Your task to perform on an android device: uninstall "Paramount+ | Peak Streaming" Image 0: 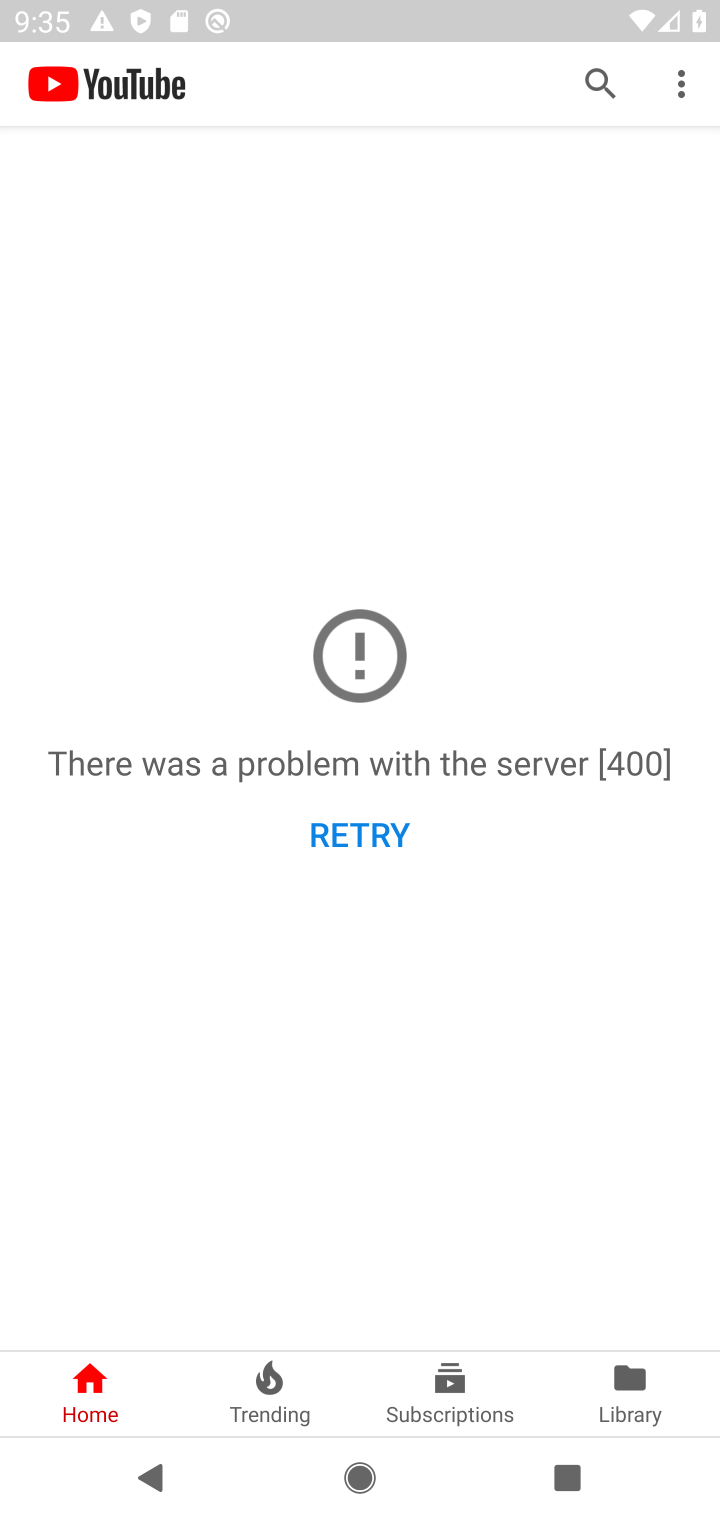
Step 0: press home button
Your task to perform on an android device: uninstall "Paramount+ | Peak Streaming" Image 1: 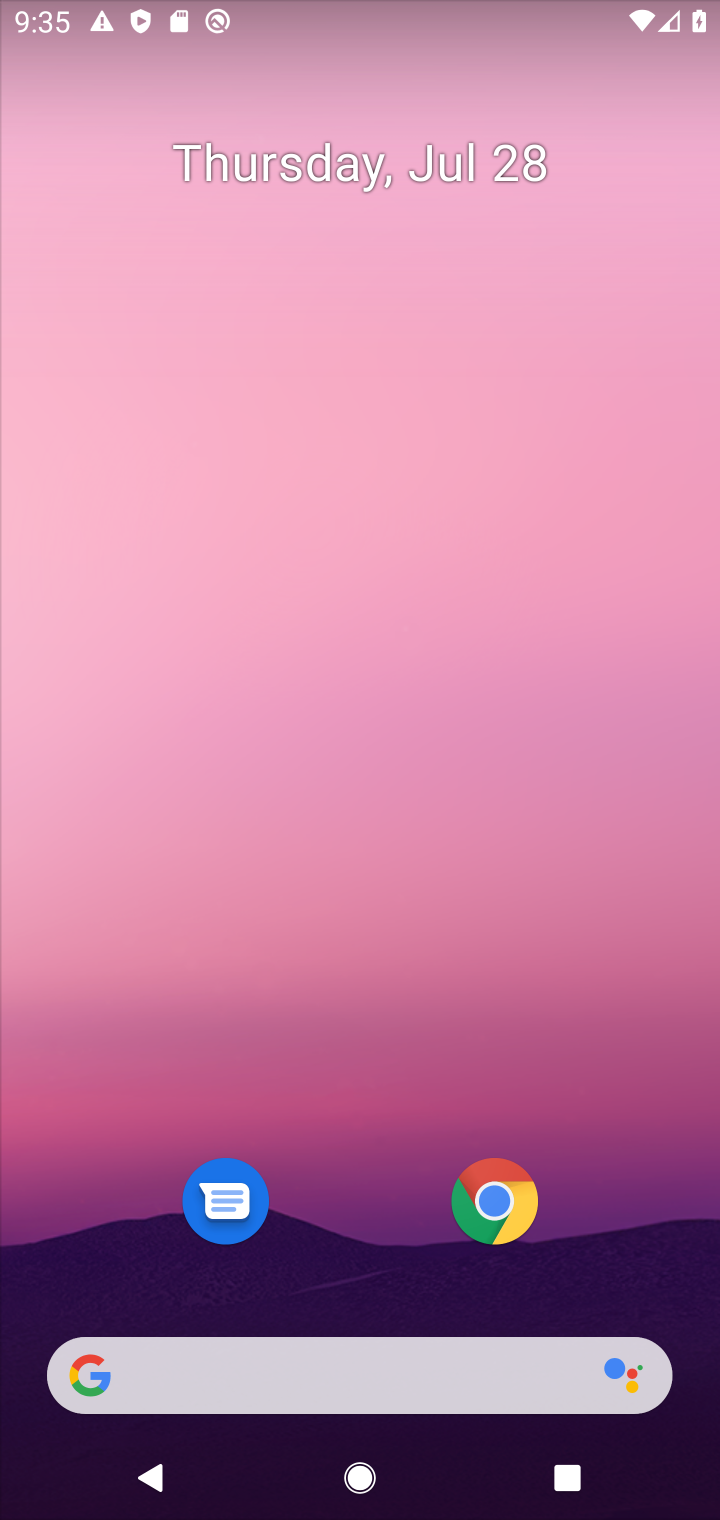
Step 1: drag from (299, 1302) to (346, 2)
Your task to perform on an android device: uninstall "Paramount+ | Peak Streaming" Image 2: 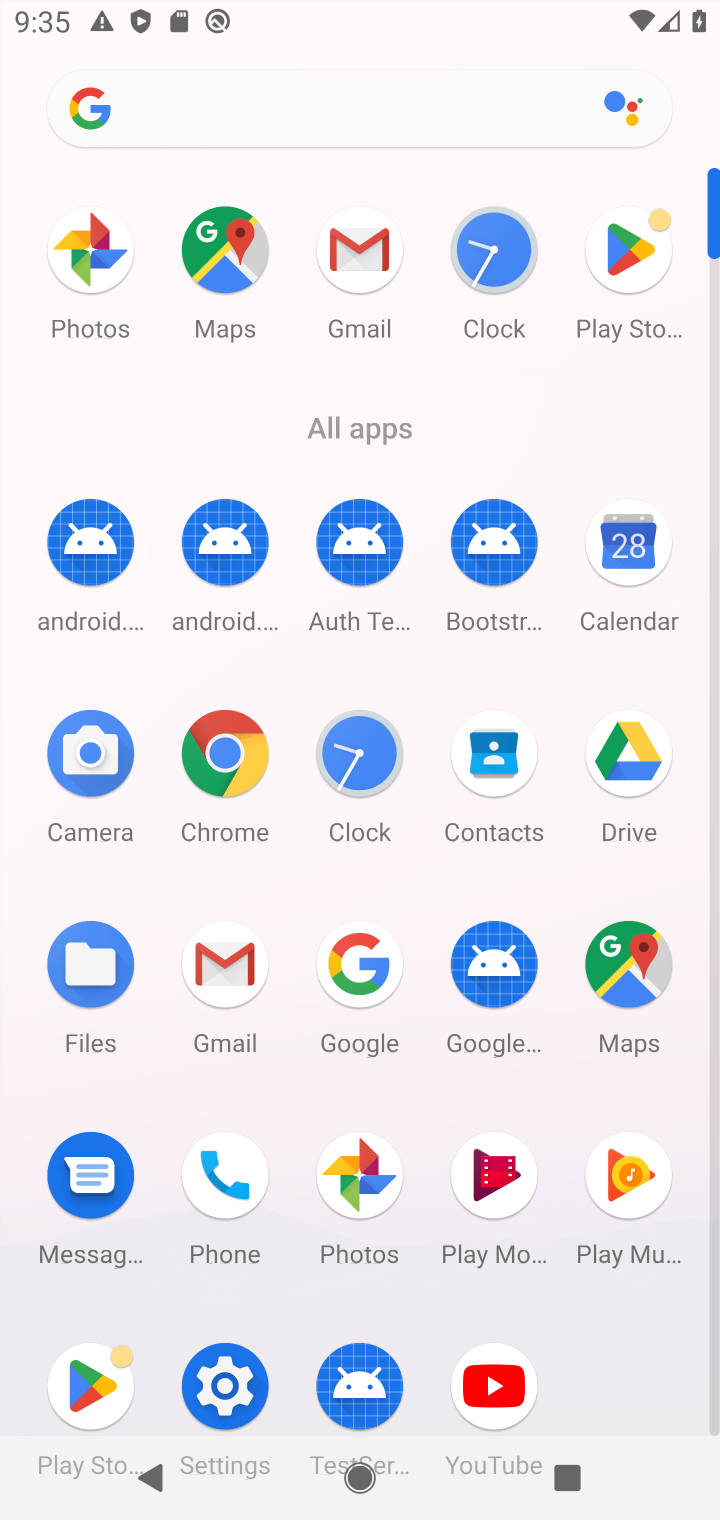
Step 2: click (627, 297)
Your task to perform on an android device: uninstall "Paramount+ | Peak Streaming" Image 3: 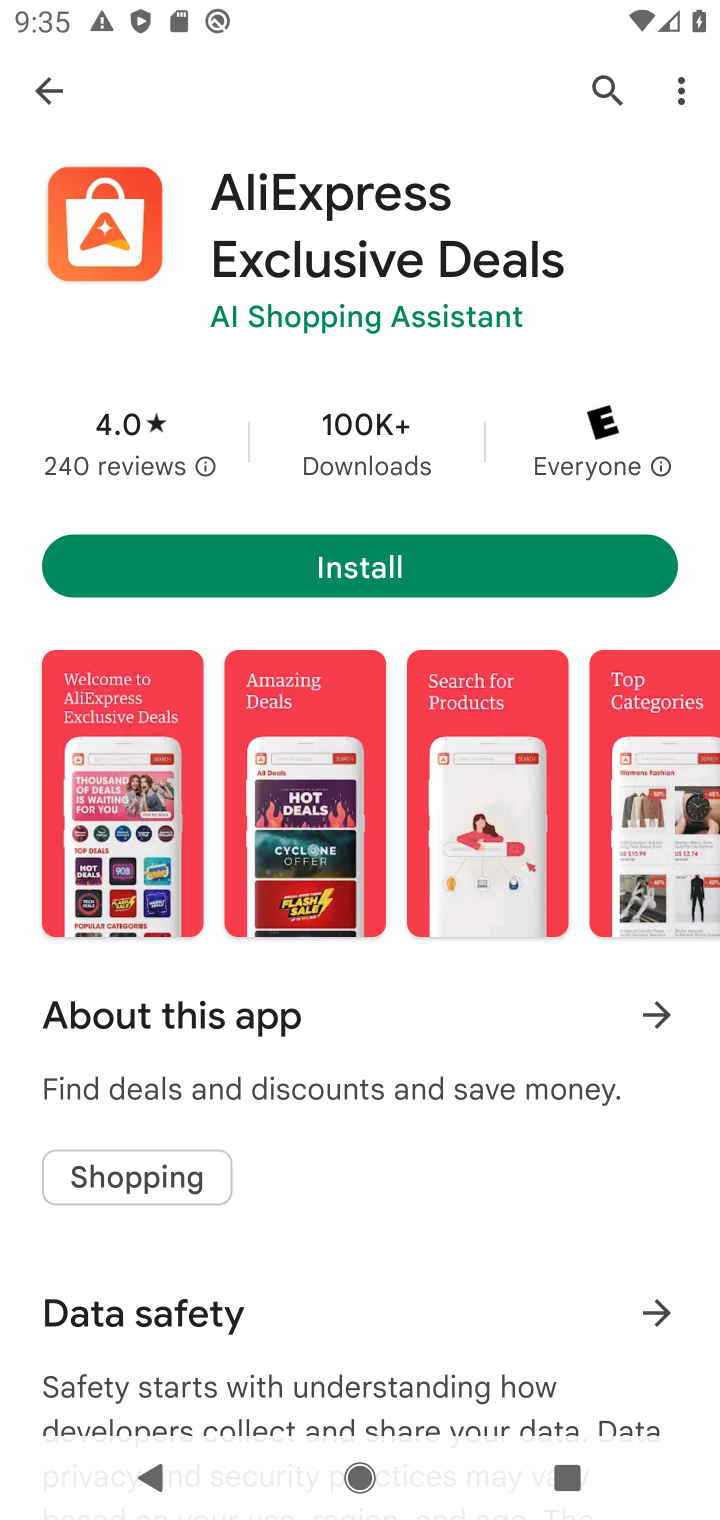
Step 3: click (48, 92)
Your task to perform on an android device: uninstall "Paramount+ | Peak Streaming" Image 4: 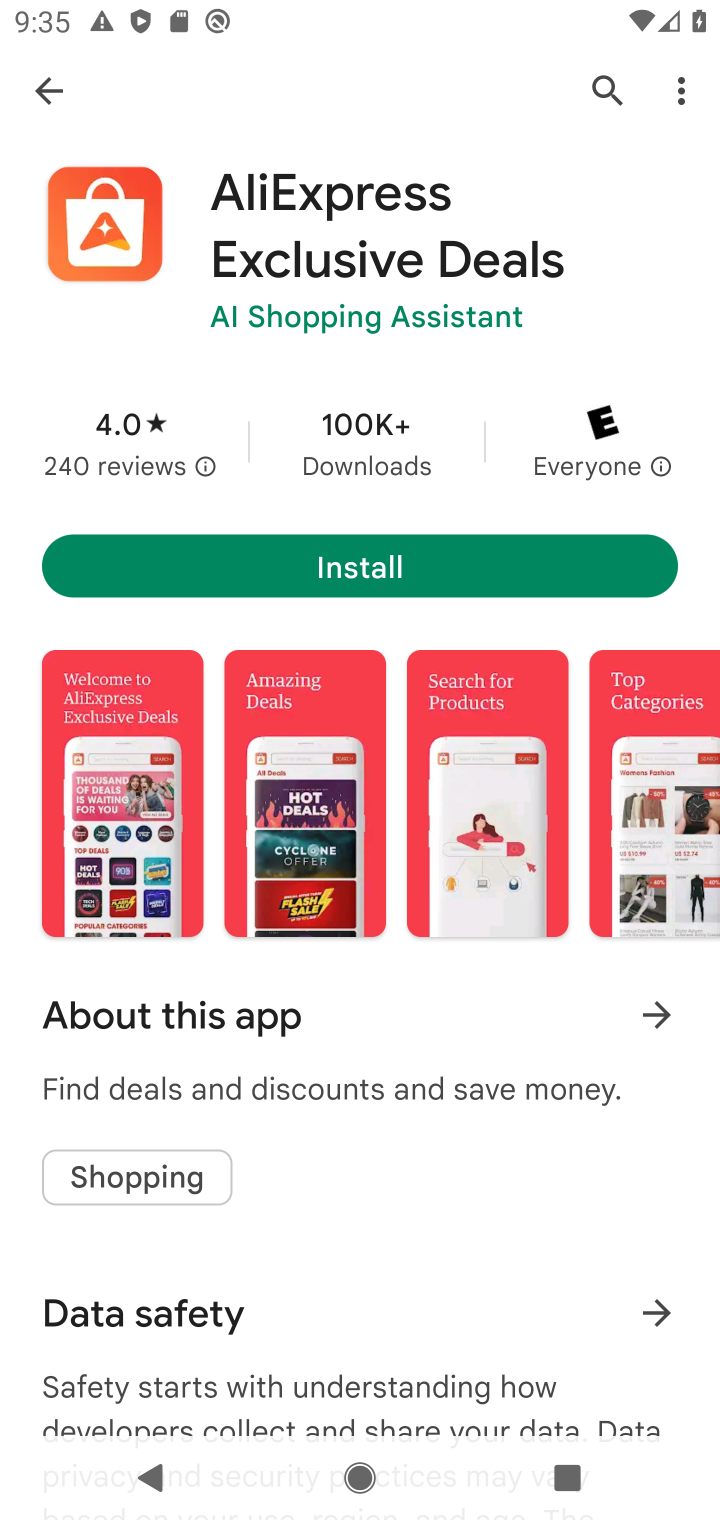
Step 4: click (43, 72)
Your task to perform on an android device: uninstall "Paramount+ | Peak Streaming" Image 5: 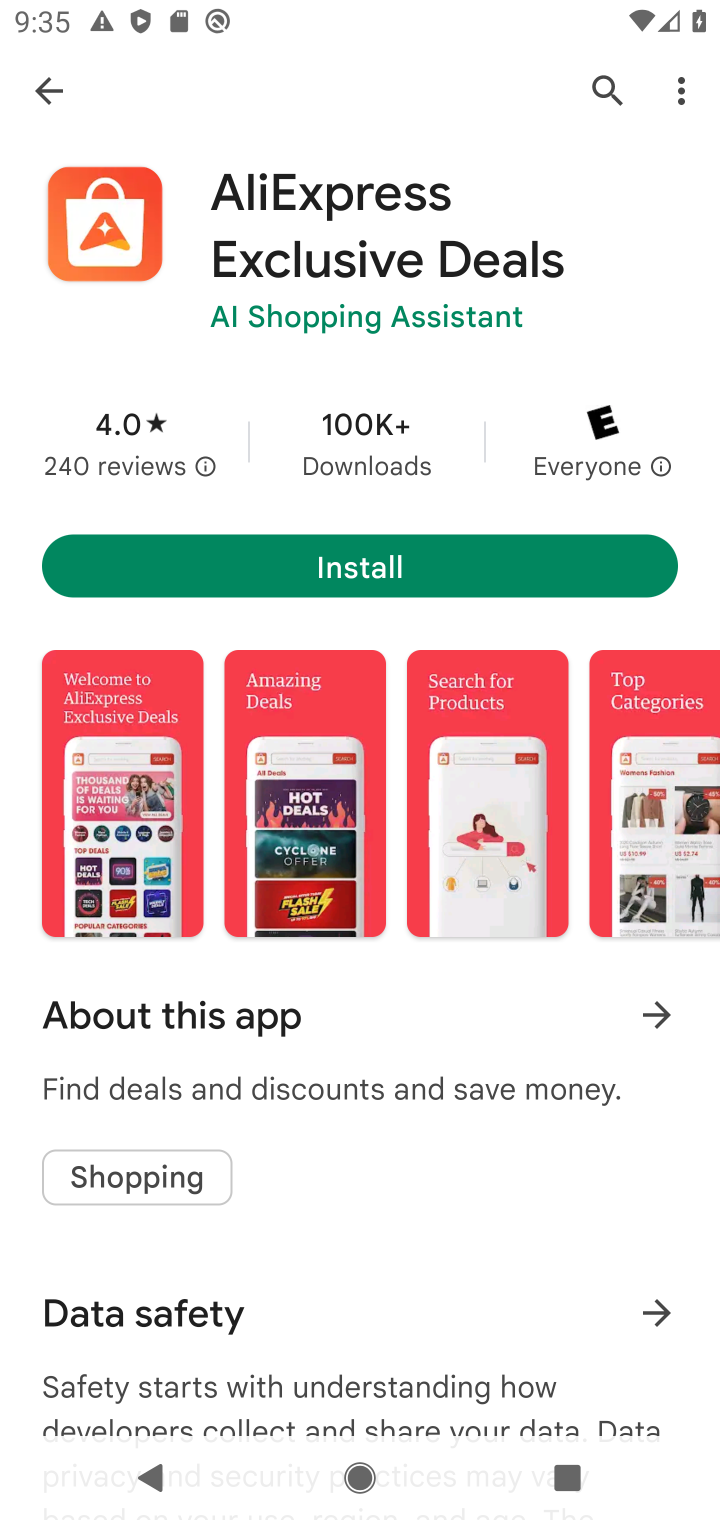
Step 5: click (50, 92)
Your task to perform on an android device: uninstall "Paramount+ | Peak Streaming" Image 6: 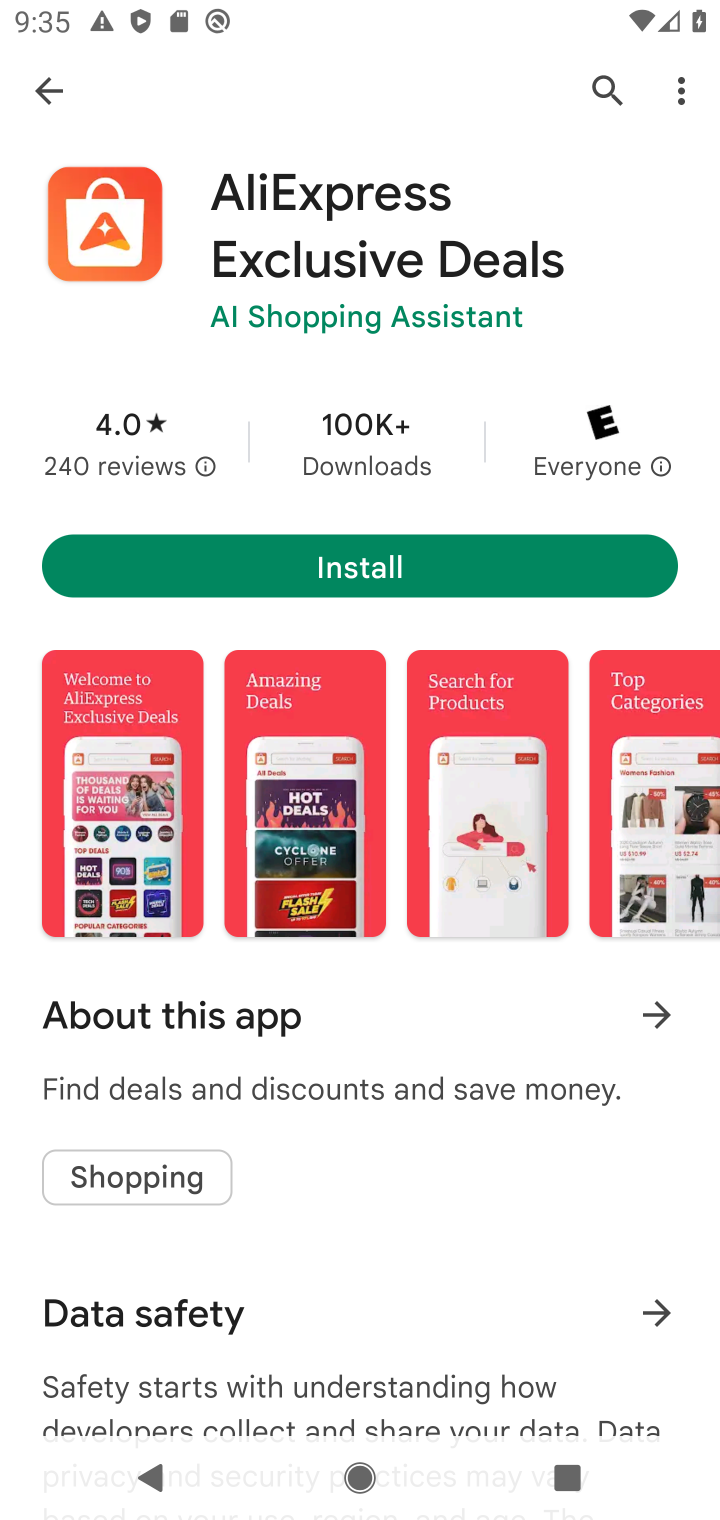
Step 6: click (51, 87)
Your task to perform on an android device: uninstall "Paramount+ | Peak Streaming" Image 7: 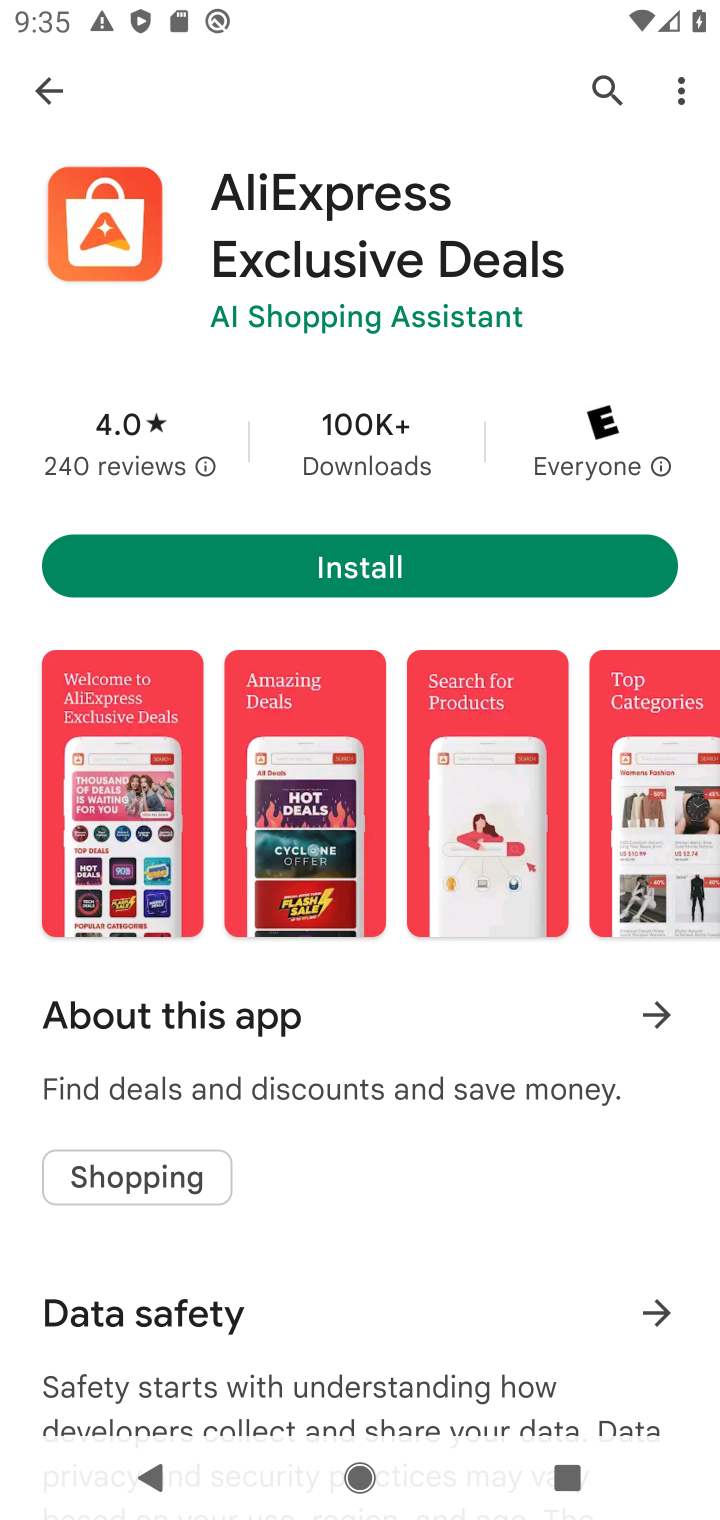
Step 7: press back button
Your task to perform on an android device: uninstall "Paramount+ | Peak Streaming" Image 8: 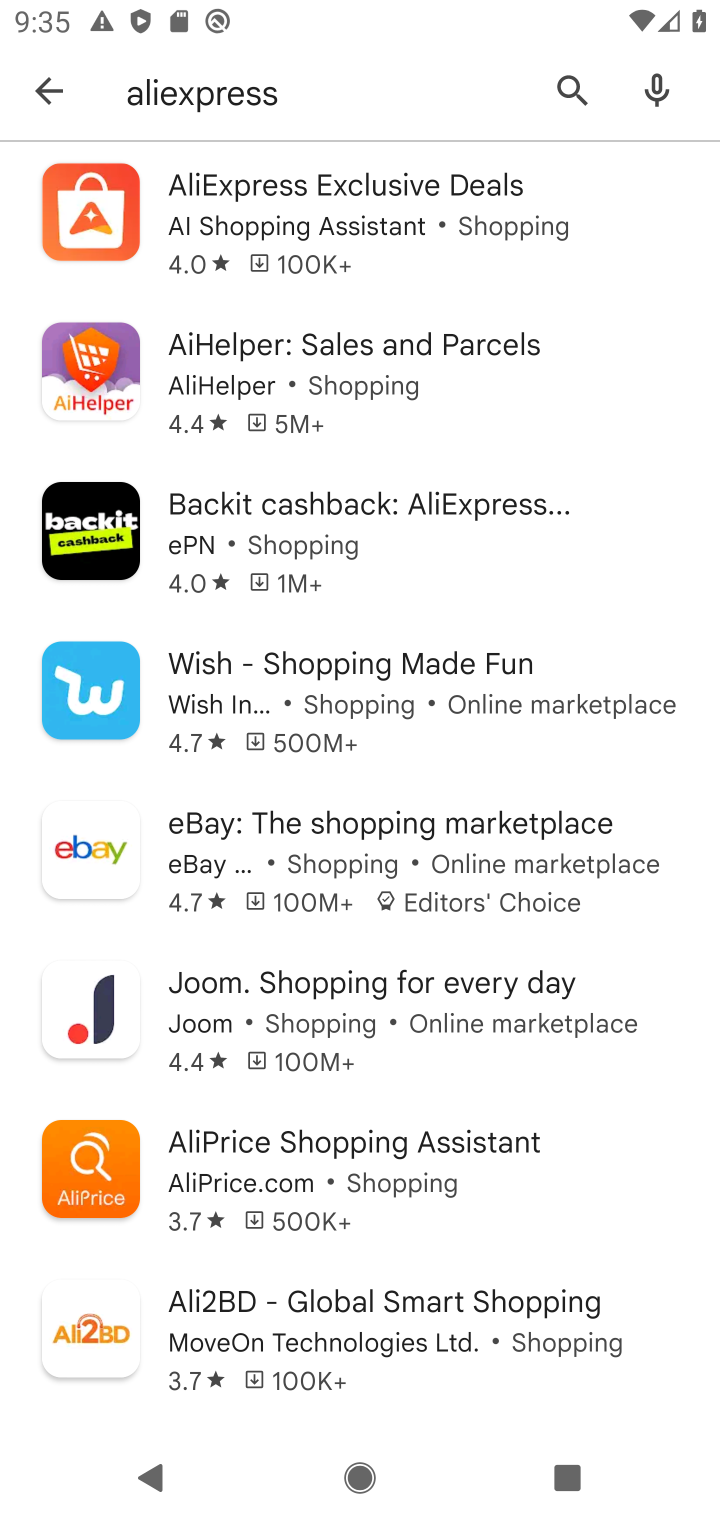
Step 8: click (322, 104)
Your task to perform on an android device: uninstall "Paramount+ | Peak Streaming" Image 9: 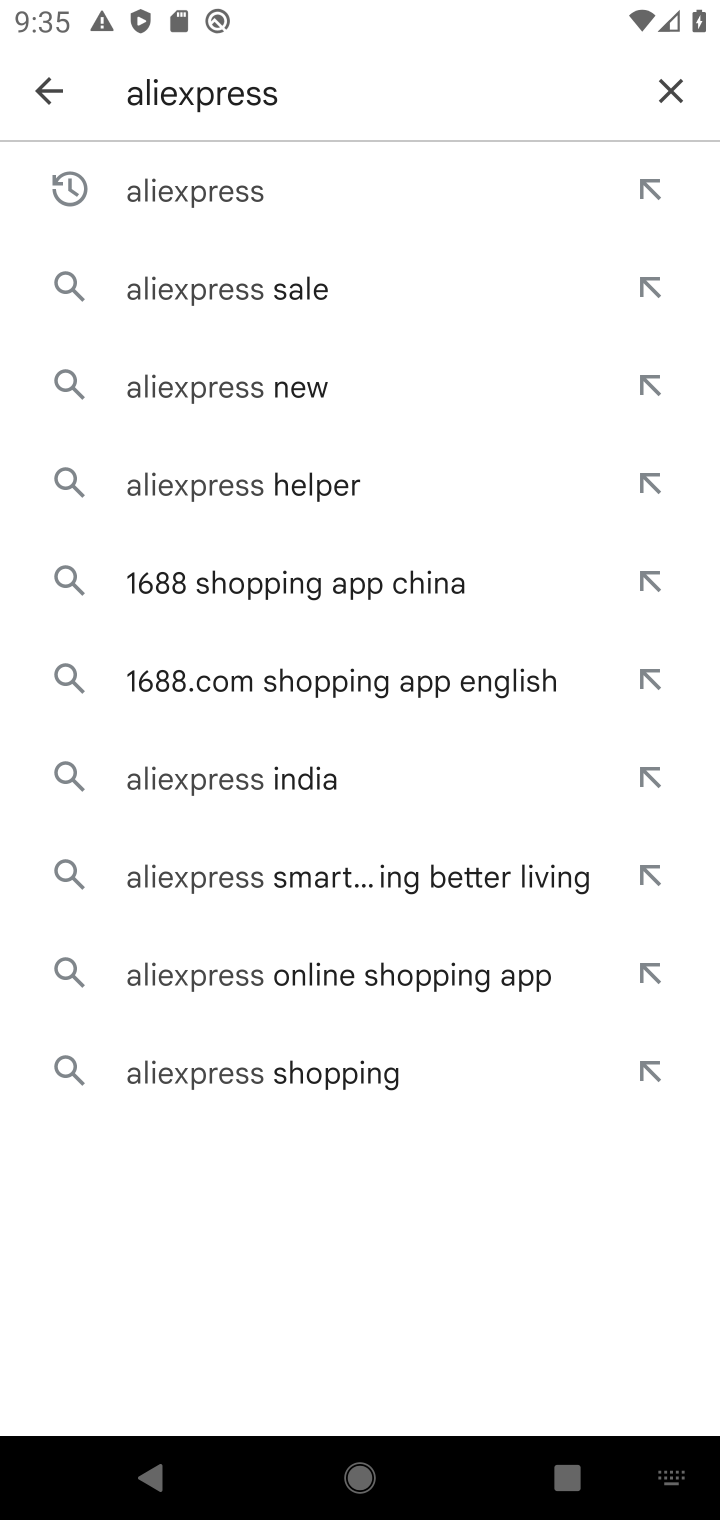
Step 9: click (680, 97)
Your task to perform on an android device: uninstall "Paramount+ | Peak Streaming" Image 10: 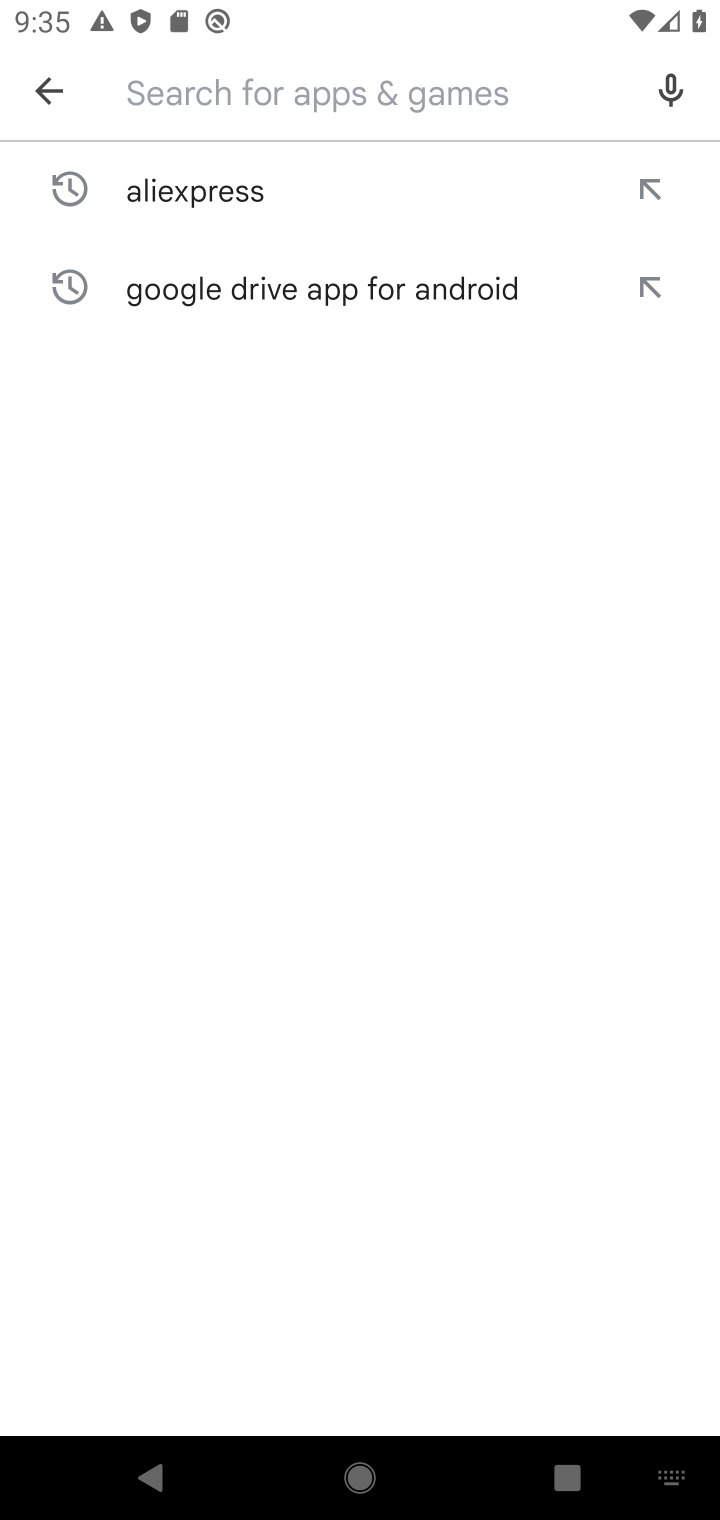
Step 10: type "paramount+"
Your task to perform on an android device: uninstall "Paramount+ | Peak Streaming" Image 11: 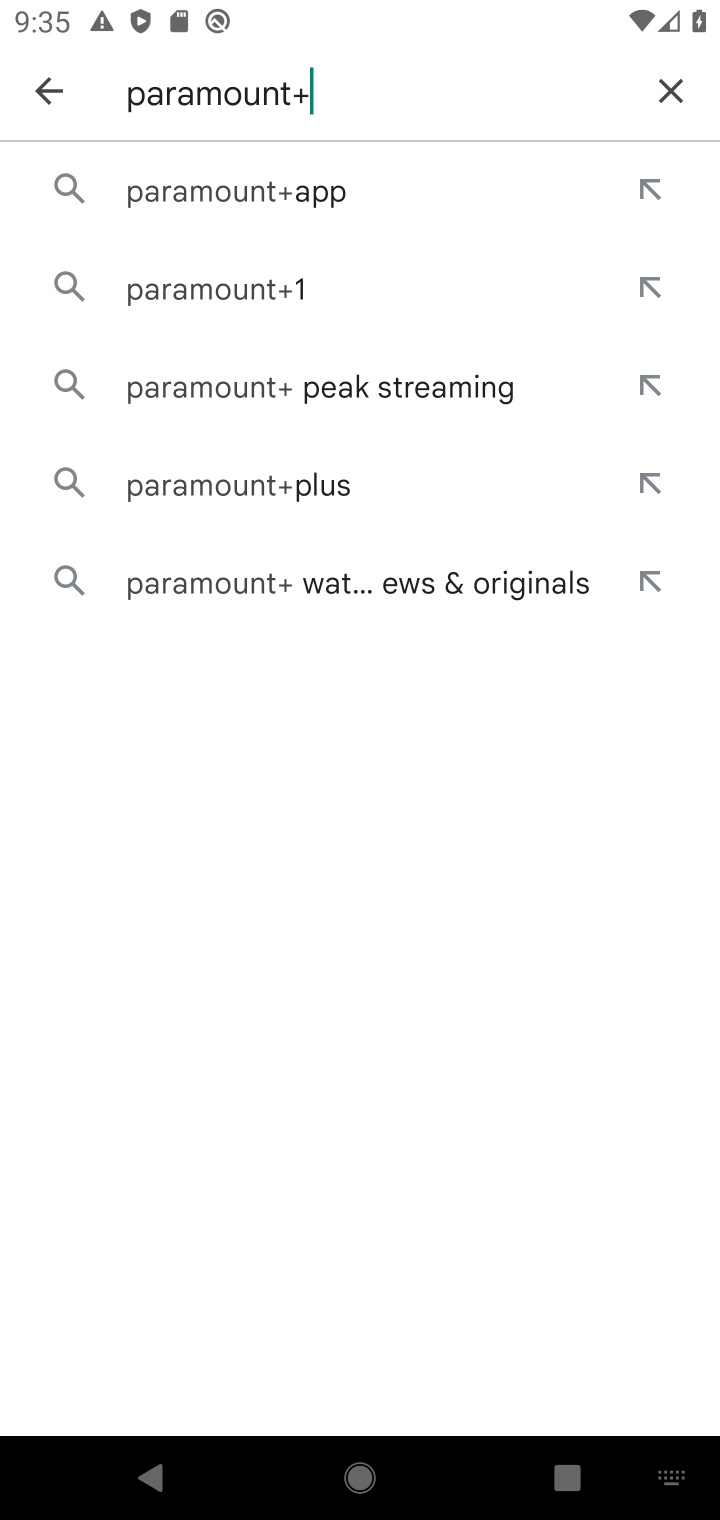
Step 11: click (244, 223)
Your task to perform on an android device: uninstall "Paramount+ | Peak Streaming" Image 12: 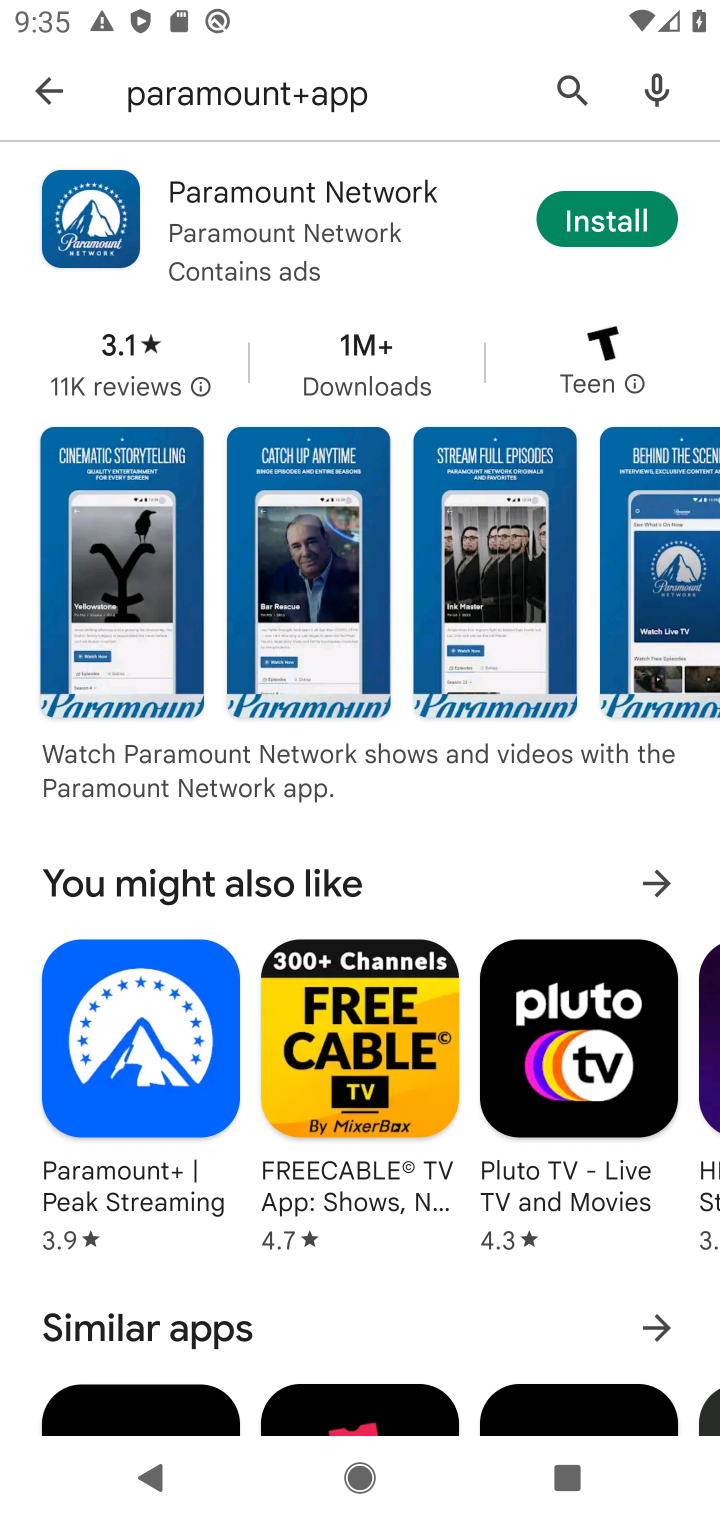
Step 12: task complete